Your task to perform on an android device: Go to eBay Image 0: 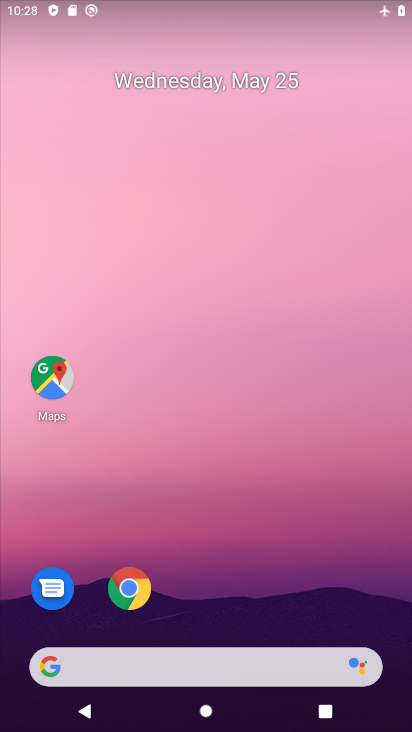
Step 0: click (122, 581)
Your task to perform on an android device: Go to eBay Image 1: 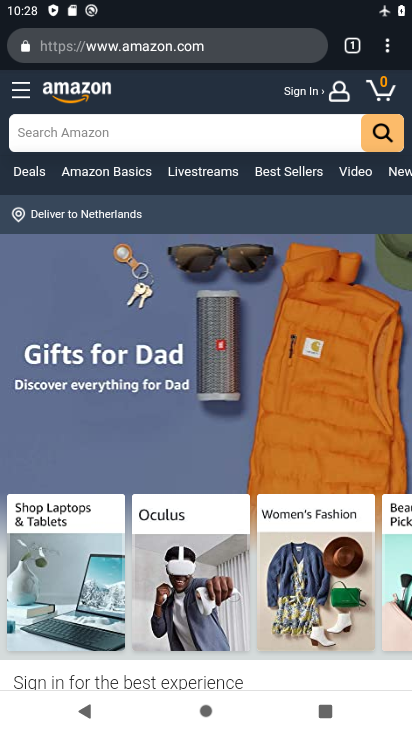
Step 1: click (192, 51)
Your task to perform on an android device: Go to eBay Image 2: 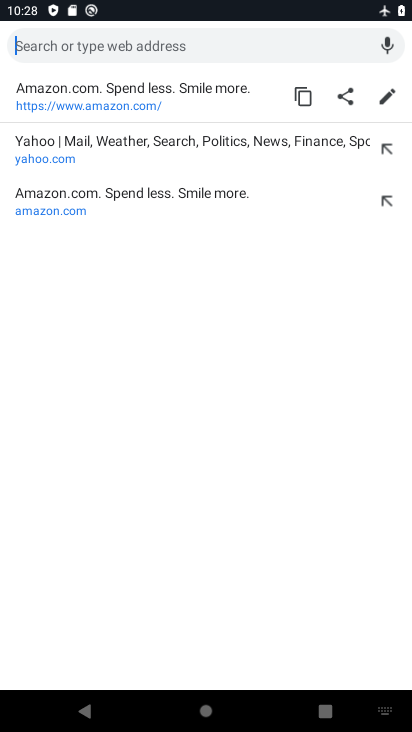
Step 2: type "ebay"
Your task to perform on an android device: Go to eBay Image 3: 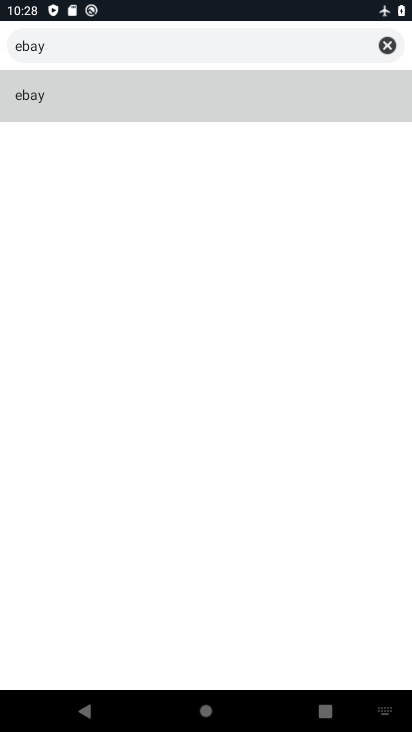
Step 3: click (50, 106)
Your task to perform on an android device: Go to eBay Image 4: 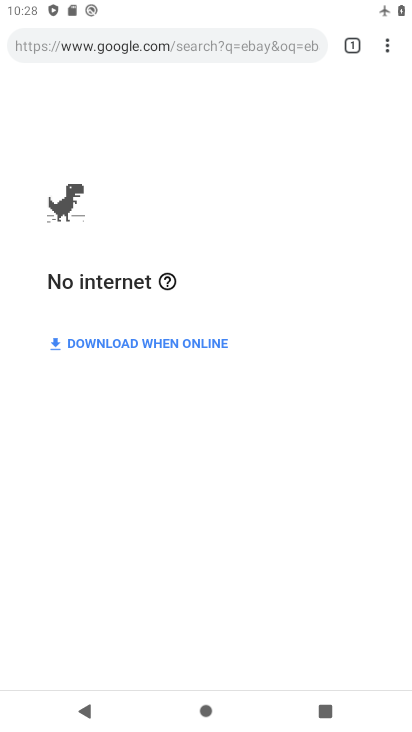
Step 4: task complete